Your task to perform on an android device: Go to Wikipedia Image 0: 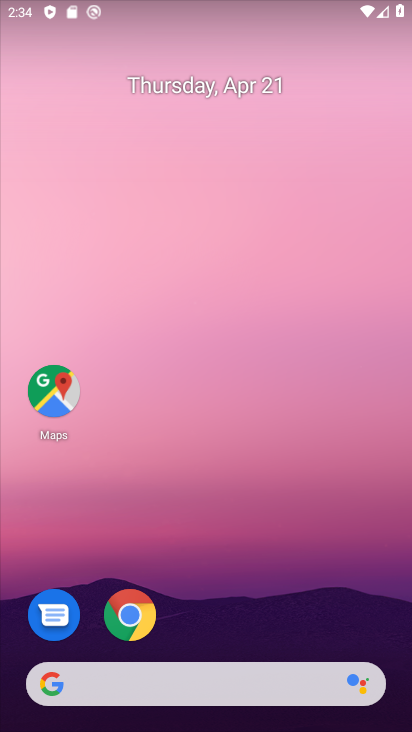
Step 0: click (137, 606)
Your task to perform on an android device: Go to Wikipedia Image 1: 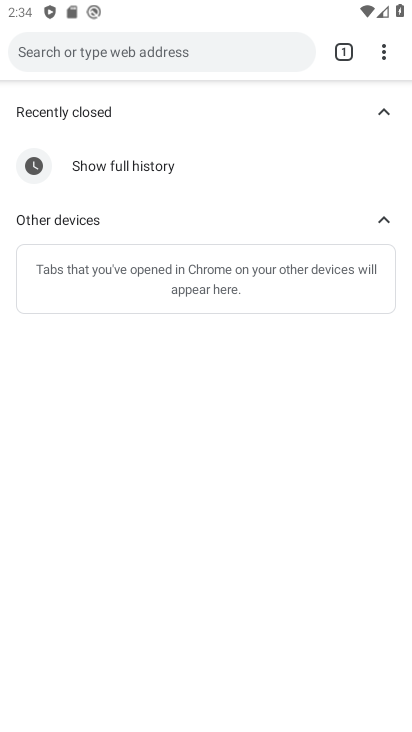
Step 1: click (354, 50)
Your task to perform on an android device: Go to Wikipedia Image 2: 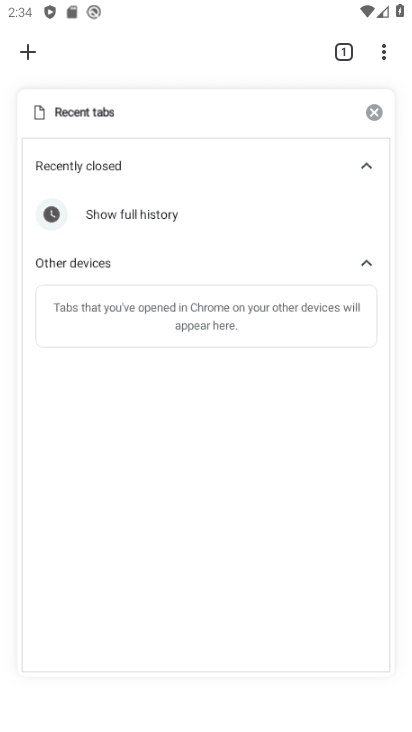
Step 2: click (38, 62)
Your task to perform on an android device: Go to Wikipedia Image 3: 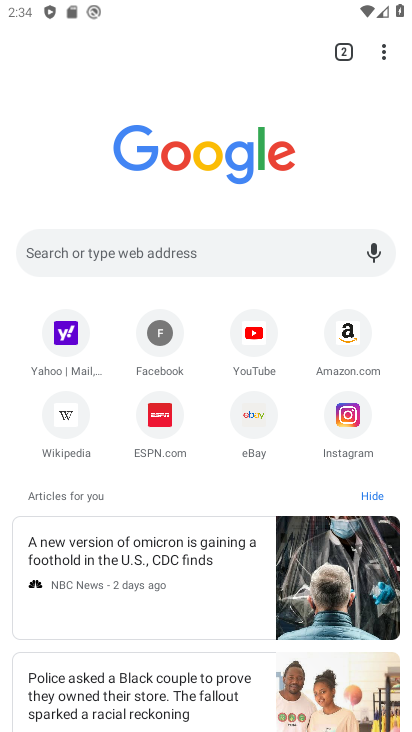
Step 3: click (74, 422)
Your task to perform on an android device: Go to Wikipedia Image 4: 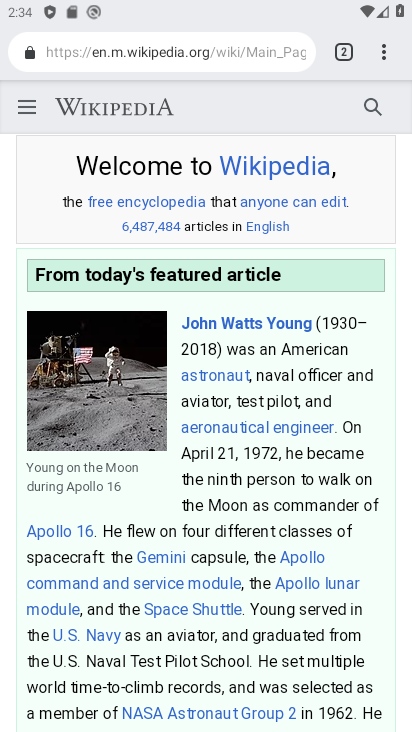
Step 4: task complete